Your task to perform on an android device: Go to Reddit.com Image 0: 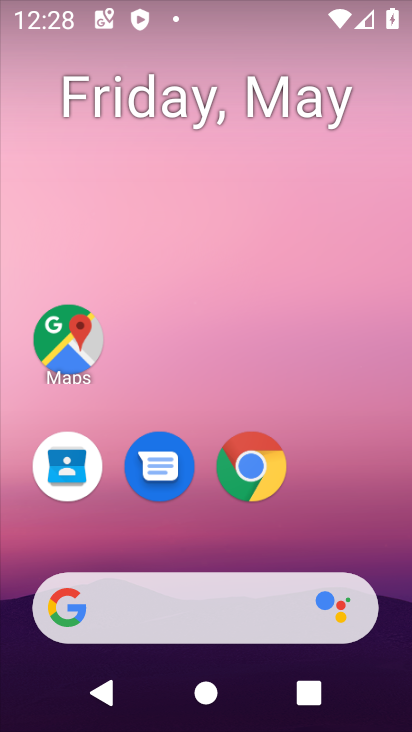
Step 0: click (361, 357)
Your task to perform on an android device: Go to Reddit.com Image 1: 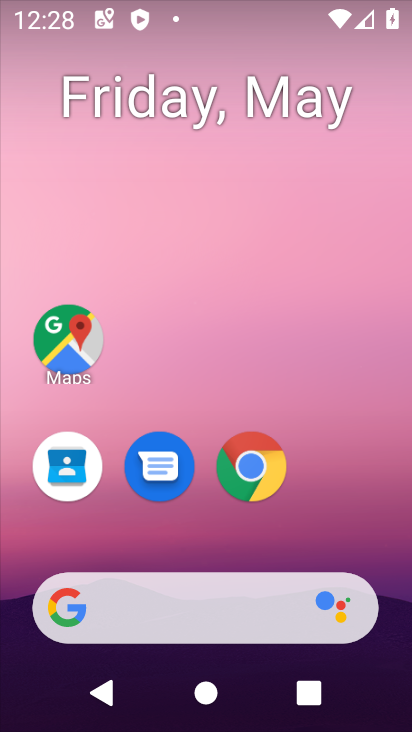
Step 1: click (263, 474)
Your task to perform on an android device: Go to Reddit.com Image 2: 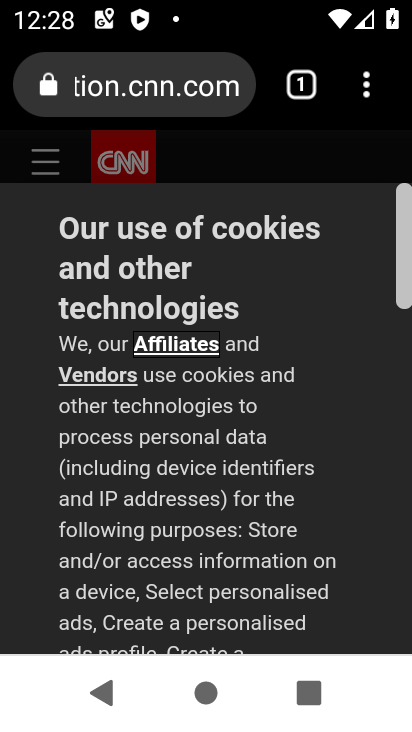
Step 2: click (128, 95)
Your task to perform on an android device: Go to Reddit.com Image 3: 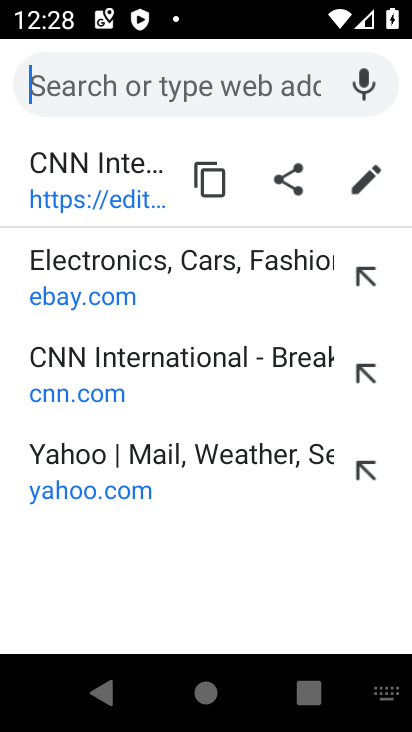
Step 3: type "www.reddit.com"
Your task to perform on an android device: Go to Reddit.com Image 4: 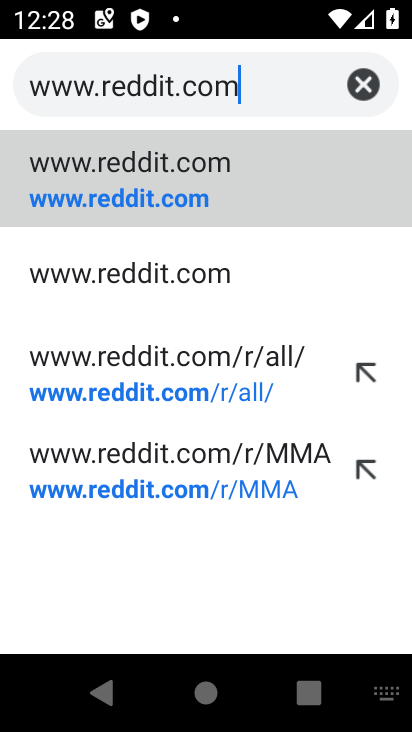
Step 4: click (123, 183)
Your task to perform on an android device: Go to Reddit.com Image 5: 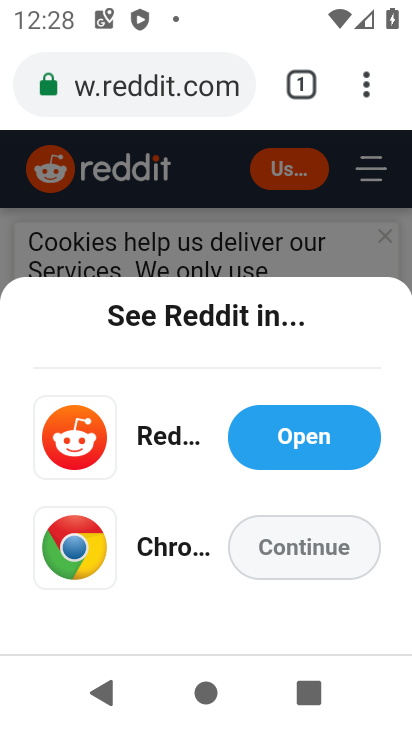
Step 5: task complete